Your task to perform on an android device: Search for a dining table on crateandbarrel.com Image 0: 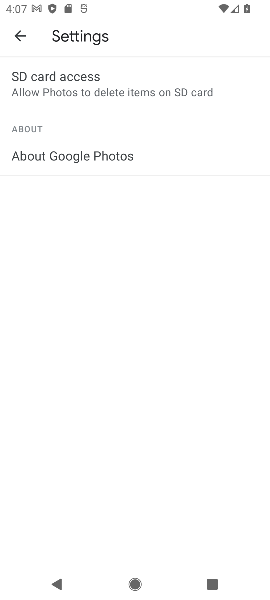
Step 0: press home button
Your task to perform on an android device: Search for a dining table on crateandbarrel.com Image 1: 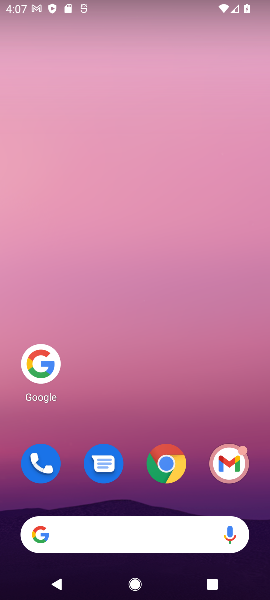
Step 1: drag from (111, 484) to (113, 89)
Your task to perform on an android device: Search for a dining table on crateandbarrel.com Image 2: 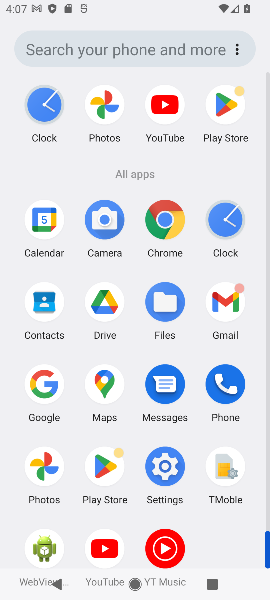
Step 2: click (37, 383)
Your task to perform on an android device: Search for a dining table on crateandbarrel.com Image 3: 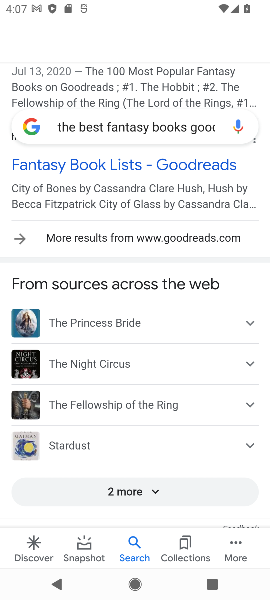
Step 3: click (126, 119)
Your task to perform on an android device: Search for a dining table on crateandbarrel.com Image 4: 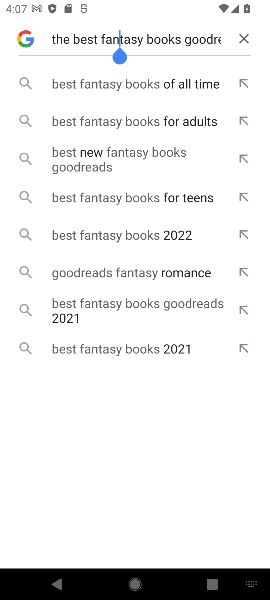
Step 4: click (242, 38)
Your task to perform on an android device: Search for a dining table on crateandbarrel.com Image 5: 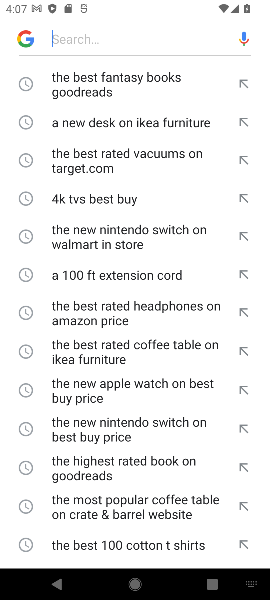
Step 5: click (127, 30)
Your task to perform on an android device: Search for a dining table on crateandbarrel.com Image 6: 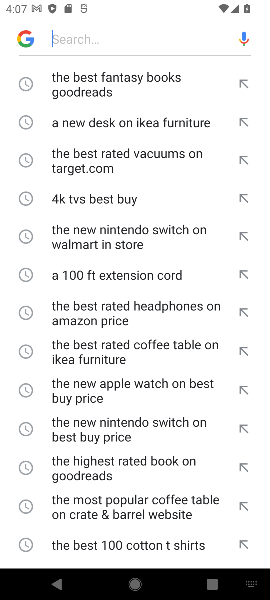
Step 6: type "a dining table on crateandbarrel.com "
Your task to perform on an android device: Search for a dining table on crateandbarrel.com Image 7: 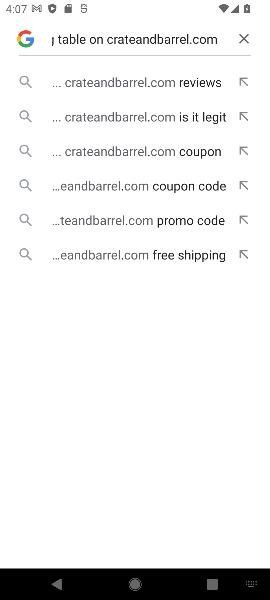
Step 7: click (130, 85)
Your task to perform on an android device: Search for a dining table on crateandbarrel.com Image 8: 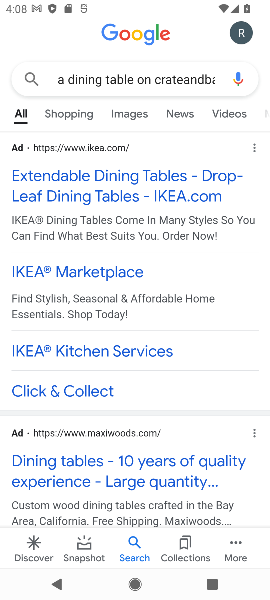
Step 8: task complete